Your task to perform on an android device: Go to Google Image 0: 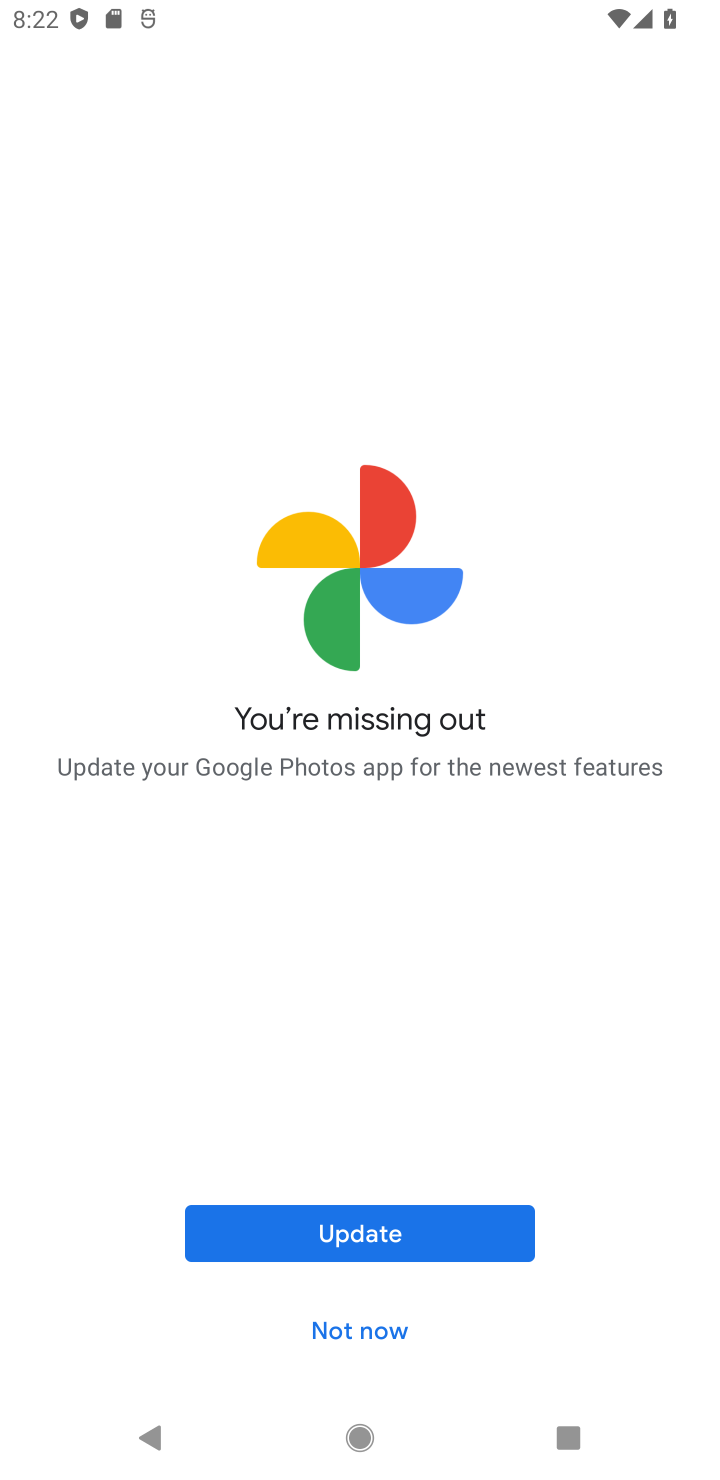
Step 0: press home button
Your task to perform on an android device: Go to Google Image 1: 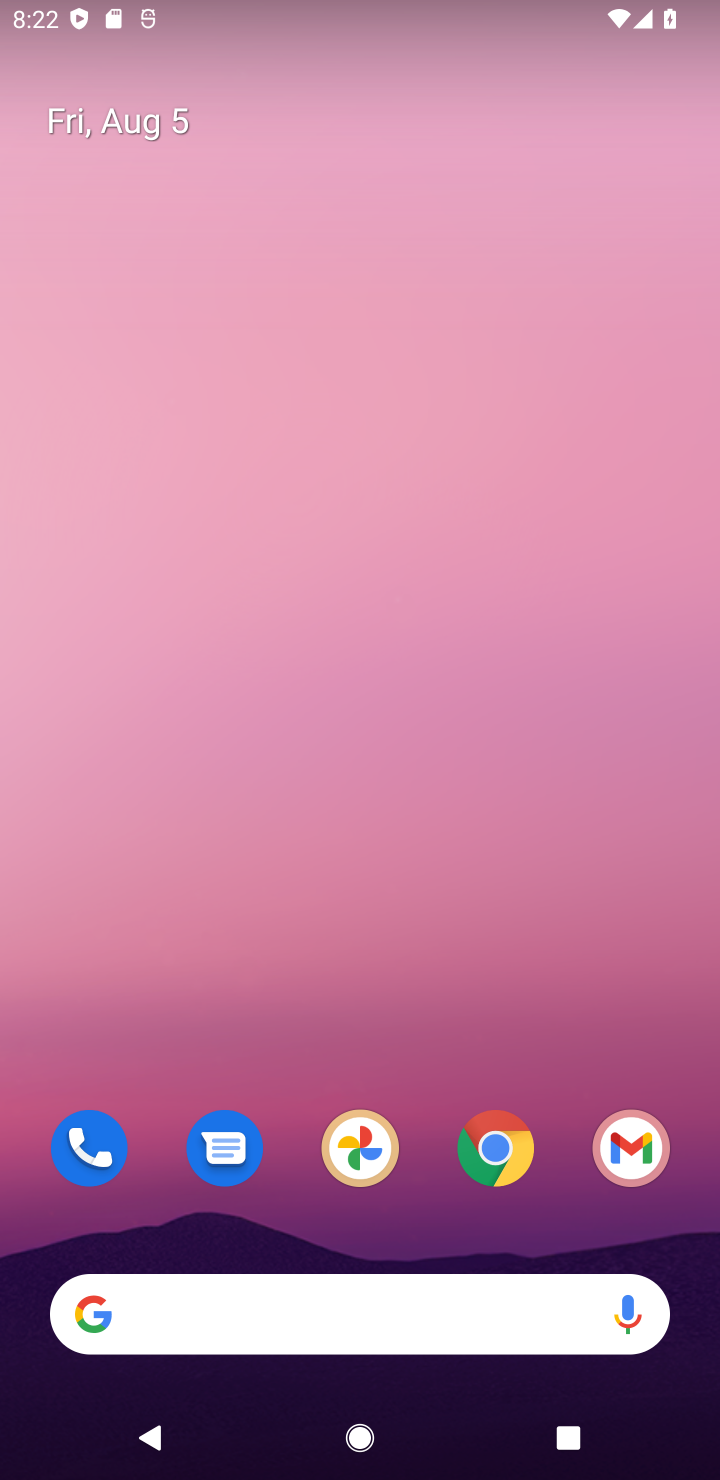
Step 1: click (499, 1175)
Your task to perform on an android device: Go to Google Image 2: 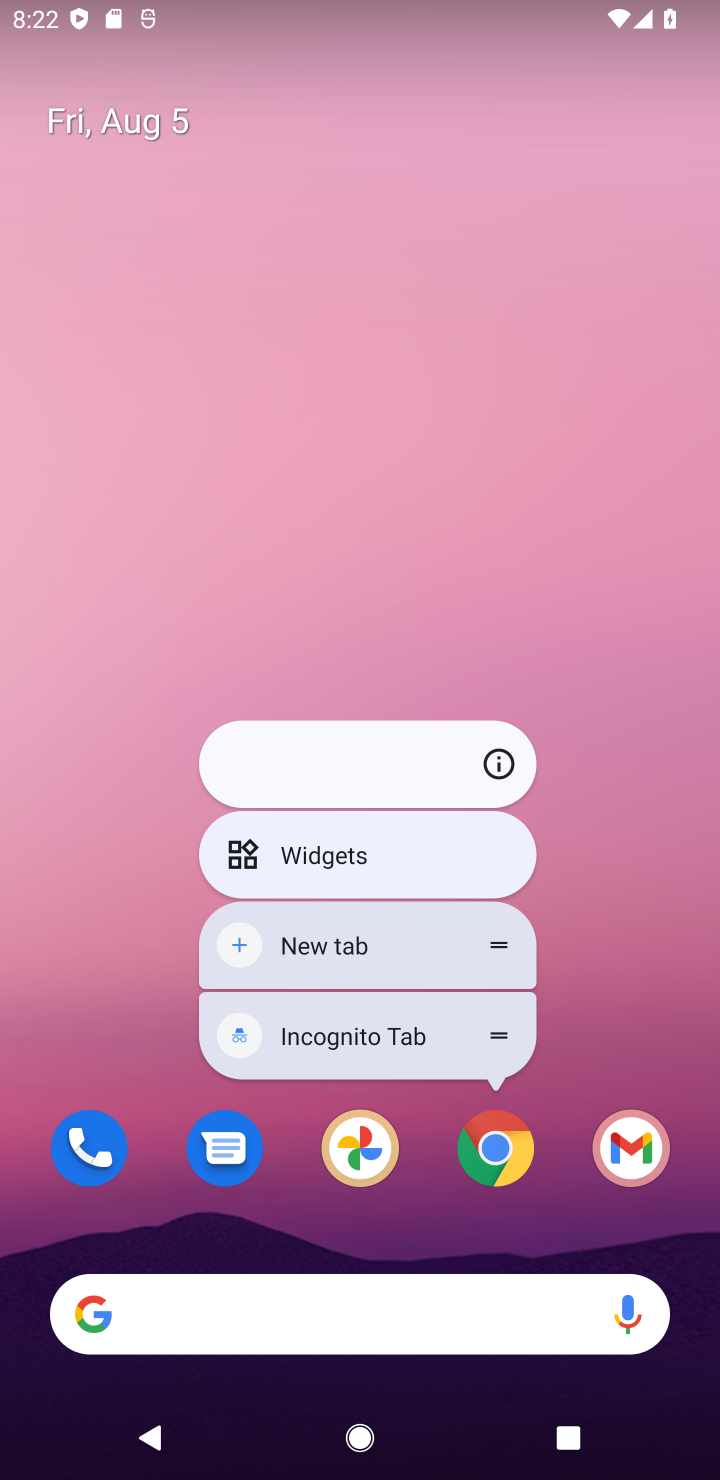
Step 2: click (499, 1175)
Your task to perform on an android device: Go to Google Image 3: 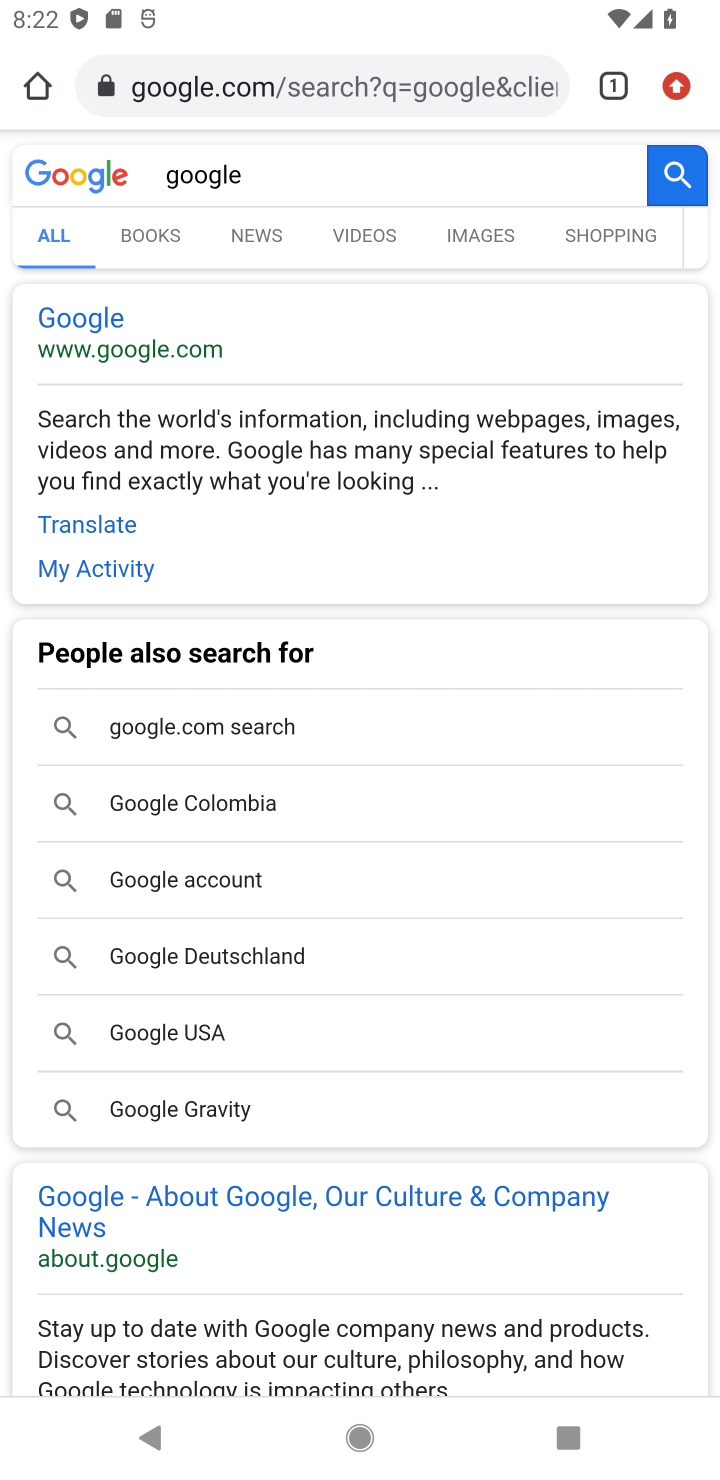
Step 3: click (153, 386)
Your task to perform on an android device: Go to Google Image 4: 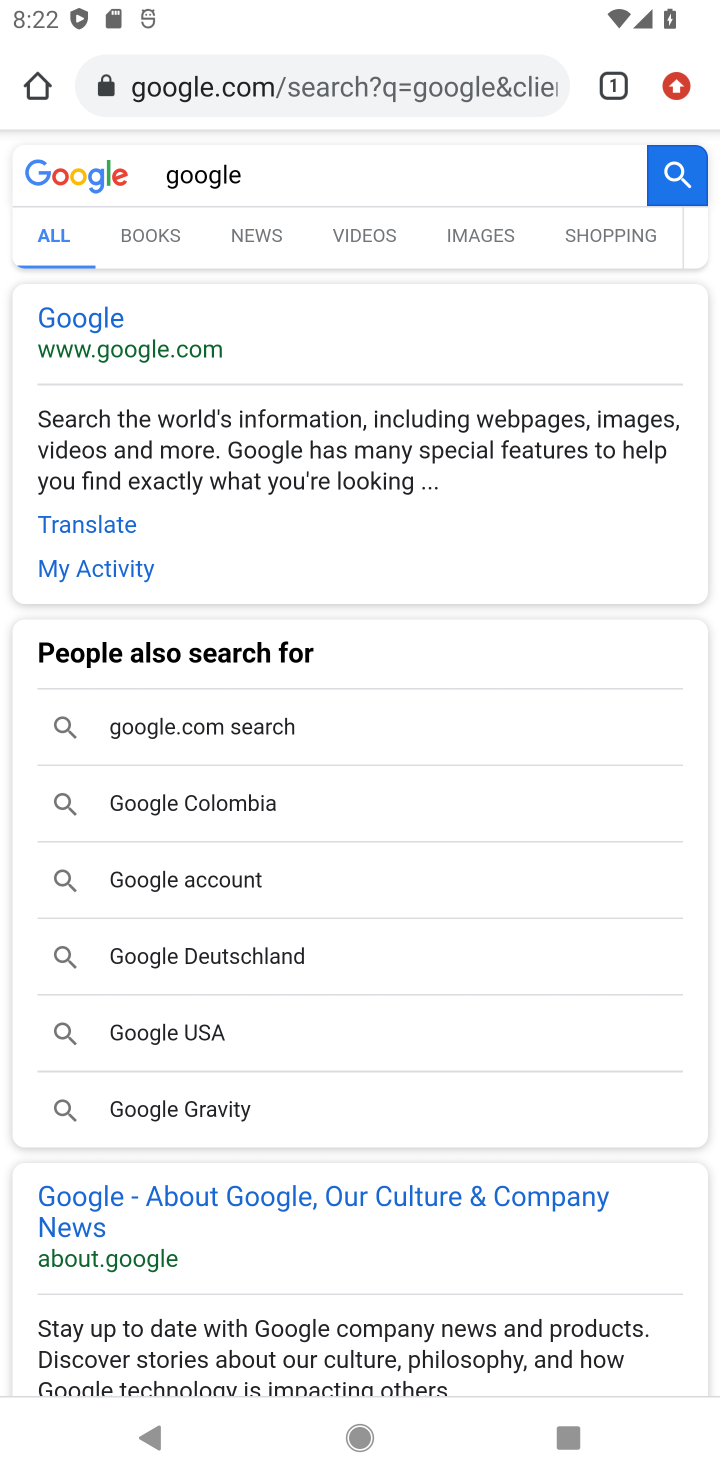
Step 4: click (195, 339)
Your task to perform on an android device: Go to Google Image 5: 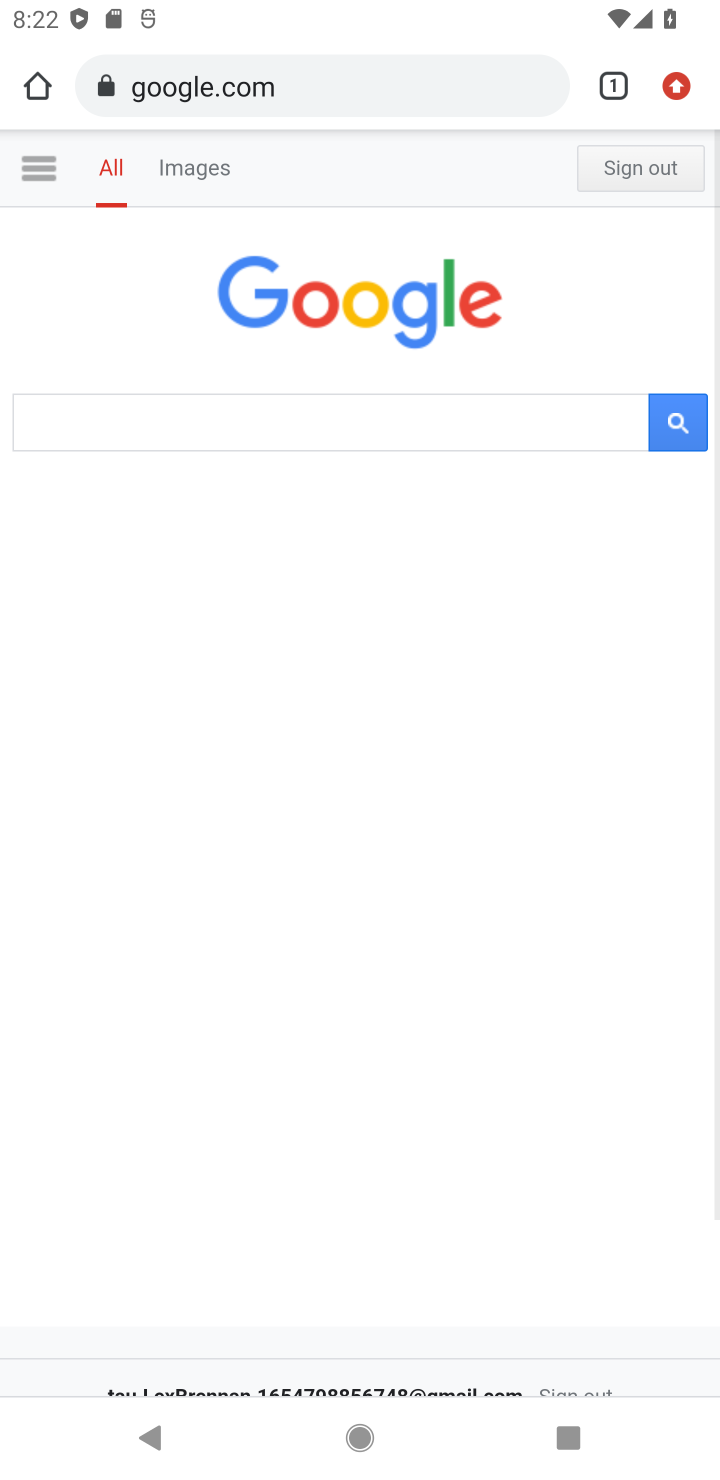
Step 5: task complete